Your task to perform on an android device: Open Youtube and go to "Your channel" Image 0: 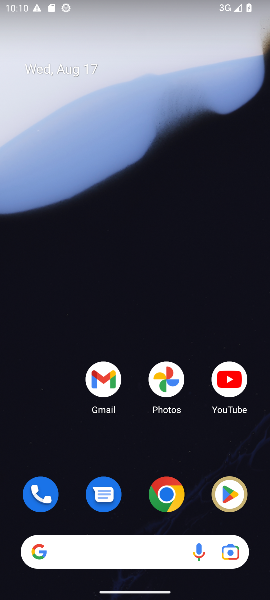
Step 0: drag from (200, 473) to (219, 134)
Your task to perform on an android device: Open Youtube and go to "Your channel" Image 1: 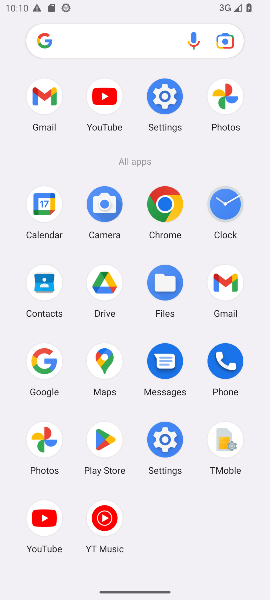
Step 1: click (43, 520)
Your task to perform on an android device: Open Youtube and go to "Your channel" Image 2: 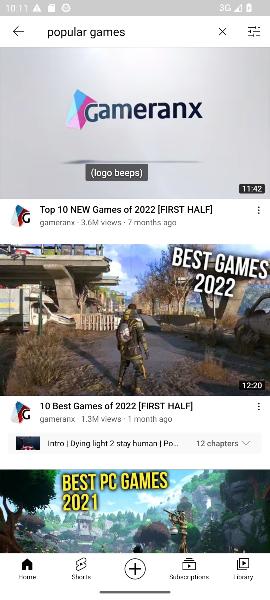
Step 2: click (259, 31)
Your task to perform on an android device: Open Youtube and go to "Your channel" Image 3: 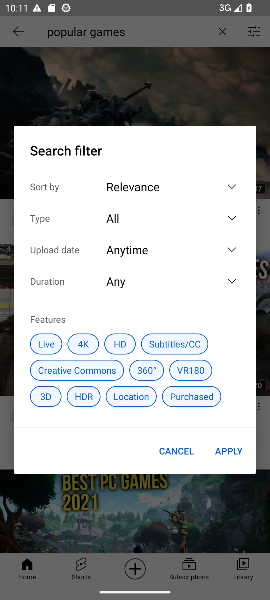
Step 3: click (16, 30)
Your task to perform on an android device: Open Youtube and go to "Your channel" Image 4: 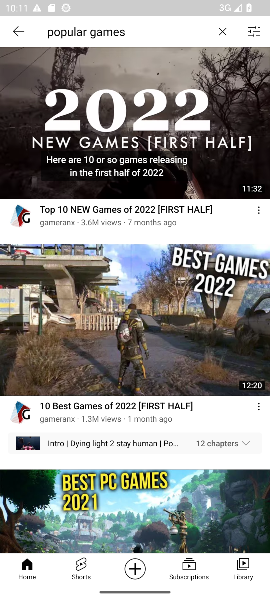
Step 4: click (19, 571)
Your task to perform on an android device: Open Youtube and go to "Your channel" Image 5: 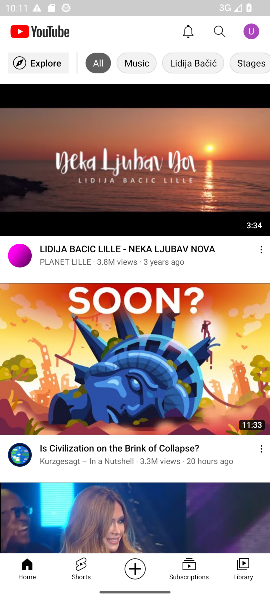
Step 5: click (253, 29)
Your task to perform on an android device: Open Youtube and go to "Your channel" Image 6: 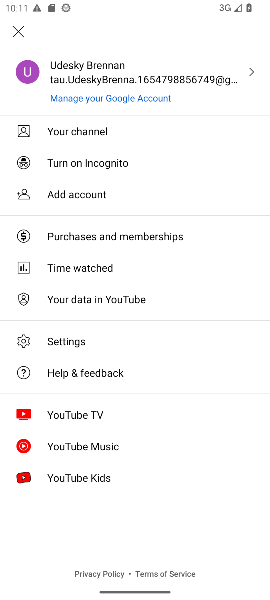
Step 6: click (73, 123)
Your task to perform on an android device: Open Youtube and go to "Your channel" Image 7: 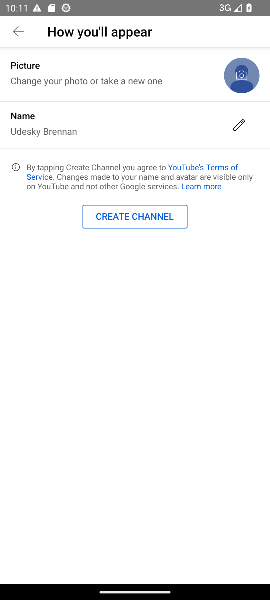
Step 7: task complete